Your task to perform on an android device: Open display settings Image 0: 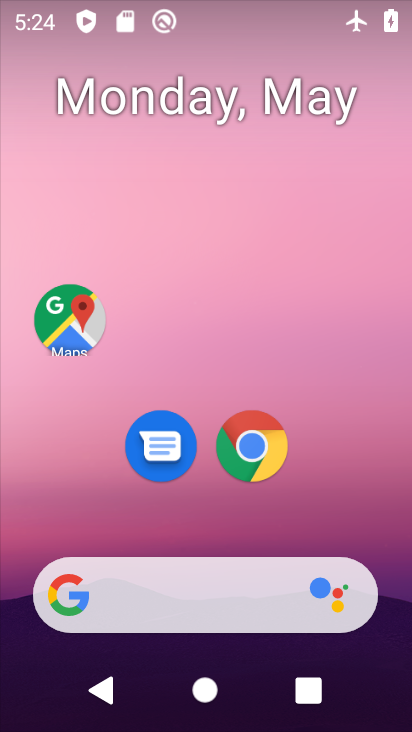
Step 0: drag from (327, 487) to (224, 101)
Your task to perform on an android device: Open display settings Image 1: 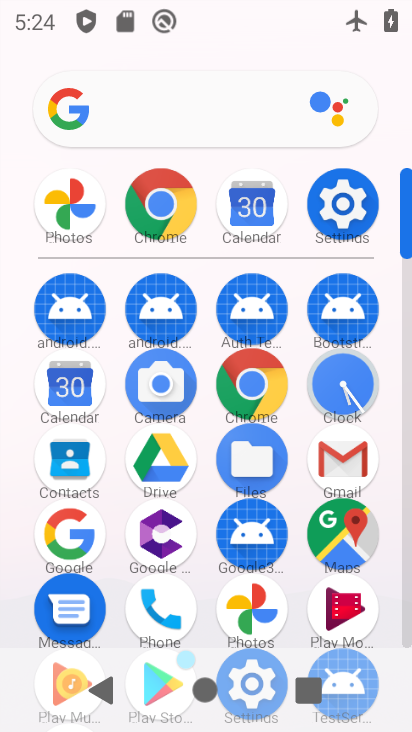
Step 1: click (339, 199)
Your task to perform on an android device: Open display settings Image 2: 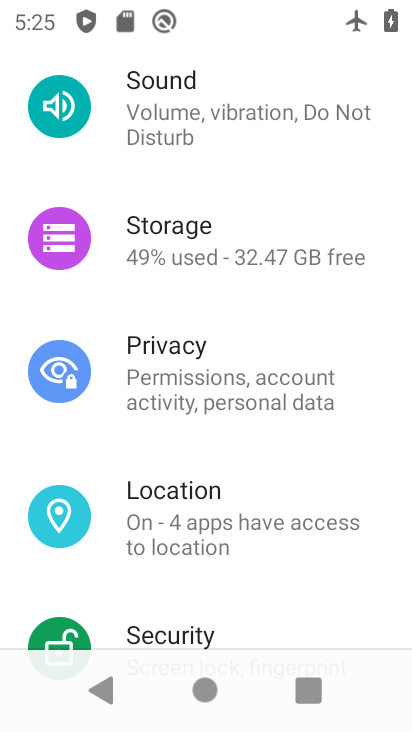
Step 2: drag from (203, 176) to (179, 721)
Your task to perform on an android device: Open display settings Image 3: 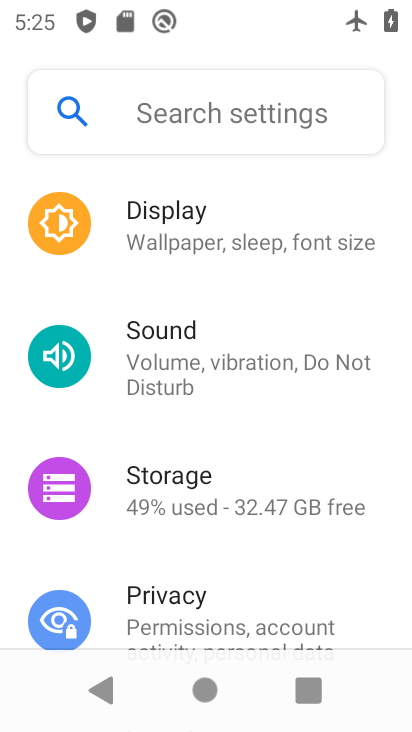
Step 3: click (169, 211)
Your task to perform on an android device: Open display settings Image 4: 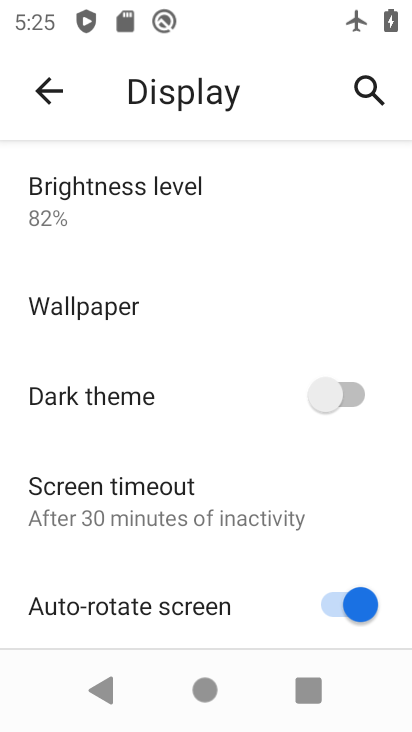
Step 4: task complete